Your task to perform on an android device: Open display settings Image 0: 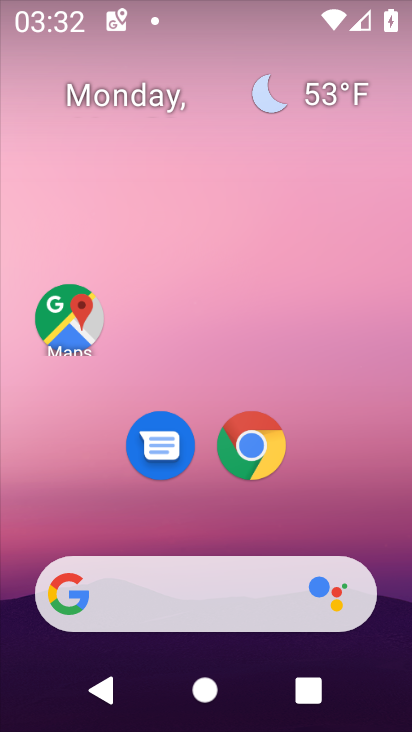
Step 0: drag from (187, 500) to (250, 6)
Your task to perform on an android device: Open display settings Image 1: 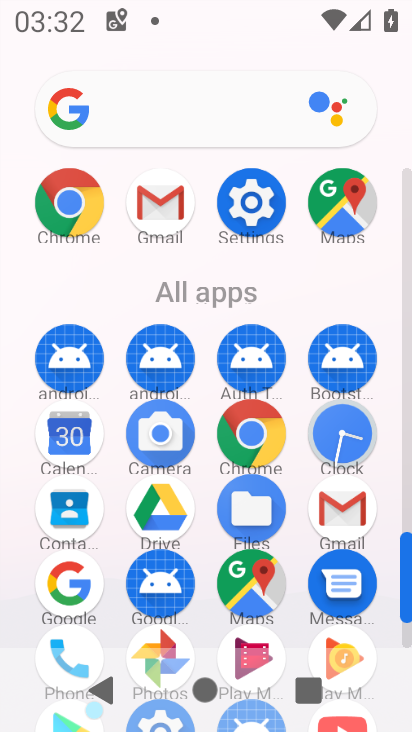
Step 1: click (252, 227)
Your task to perform on an android device: Open display settings Image 2: 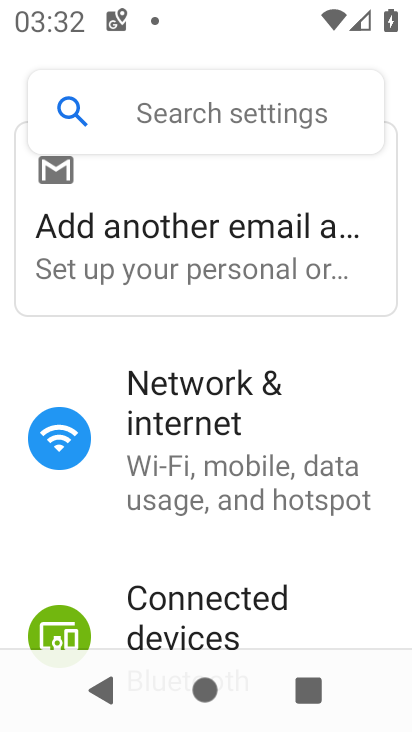
Step 2: drag from (181, 476) to (218, 183)
Your task to perform on an android device: Open display settings Image 3: 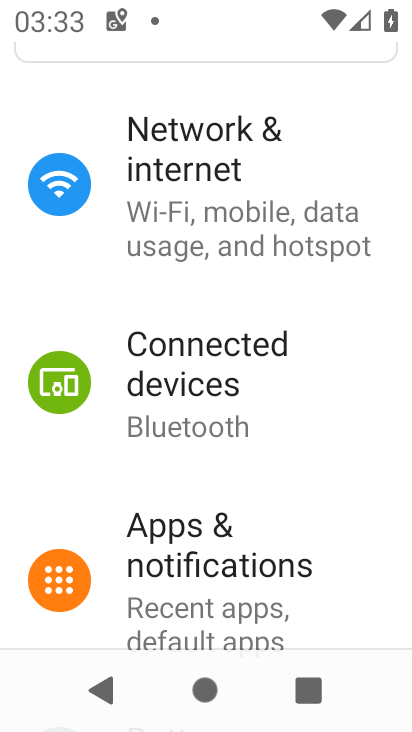
Step 3: drag from (213, 421) to (209, 364)
Your task to perform on an android device: Open display settings Image 4: 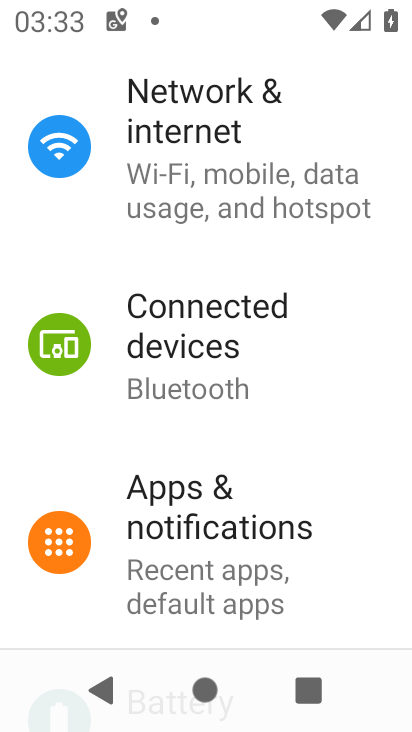
Step 4: drag from (214, 596) to (240, 224)
Your task to perform on an android device: Open display settings Image 5: 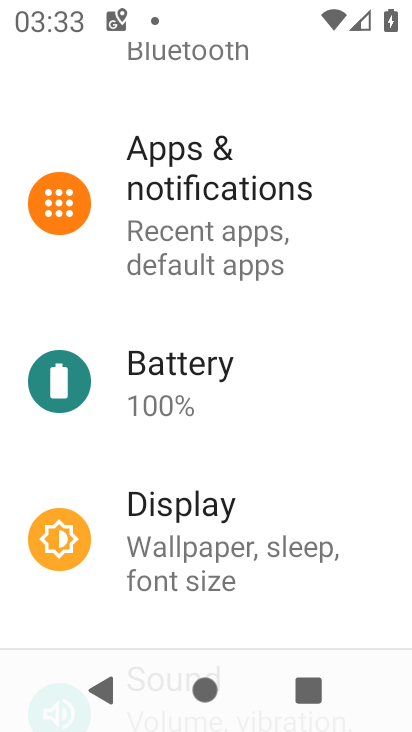
Step 5: click (194, 553)
Your task to perform on an android device: Open display settings Image 6: 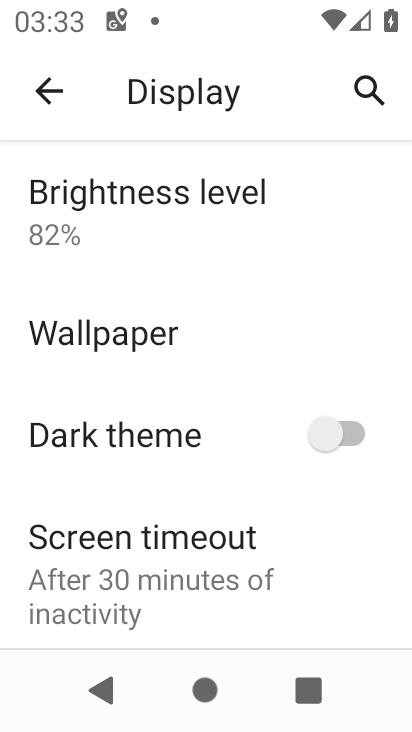
Step 6: task complete